Your task to perform on an android device: all mails in gmail Image 0: 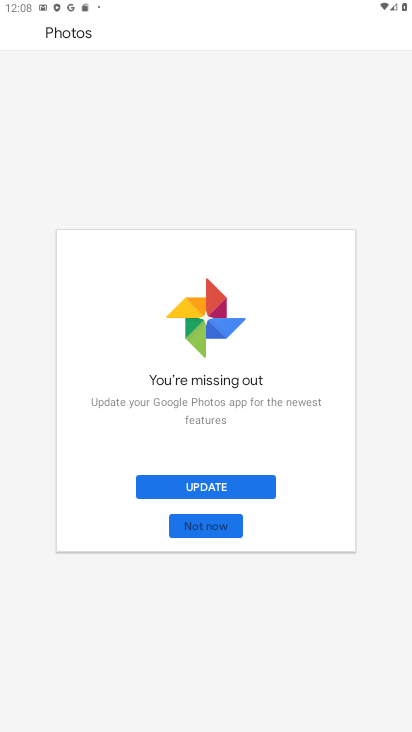
Step 0: press home button
Your task to perform on an android device: all mails in gmail Image 1: 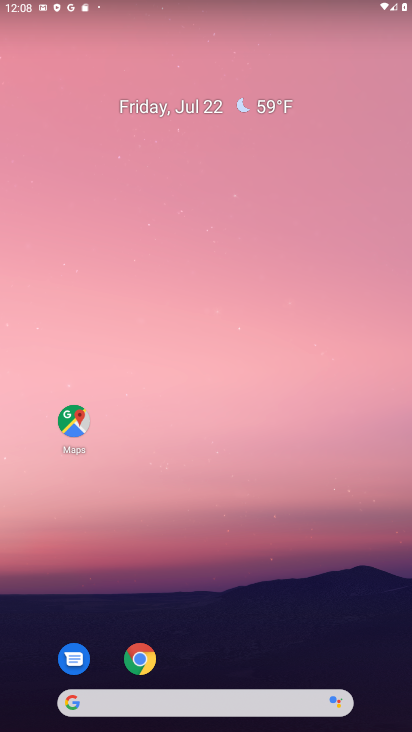
Step 1: drag from (232, 534) to (144, 88)
Your task to perform on an android device: all mails in gmail Image 2: 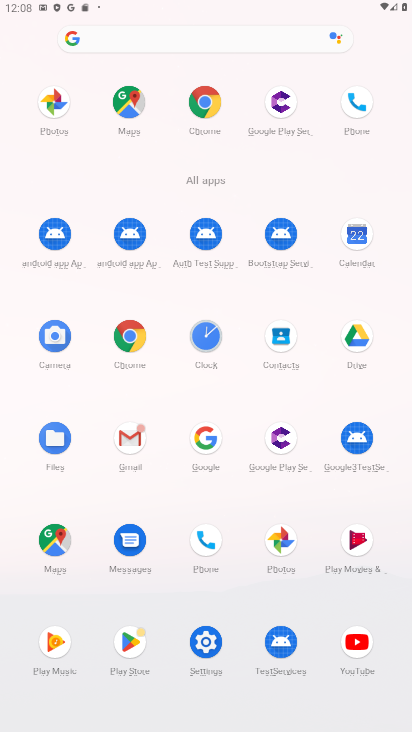
Step 2: click (121, 433)
Your task to perform on an android device: all mails in gmail Image 3: 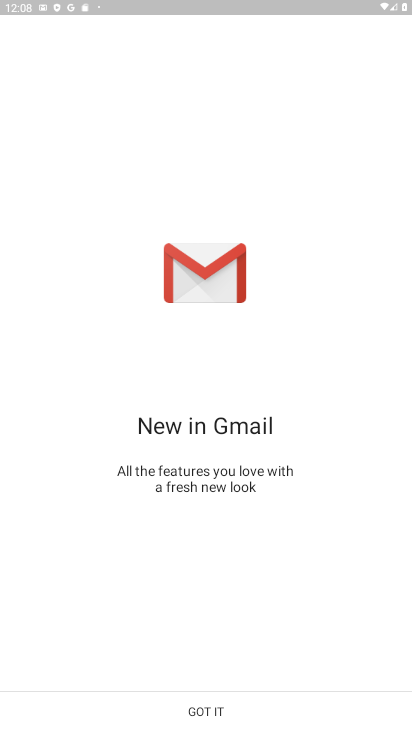
Step 3: click (223, 705)
Your task to perform on an android device: all mails in gmail Image 4: 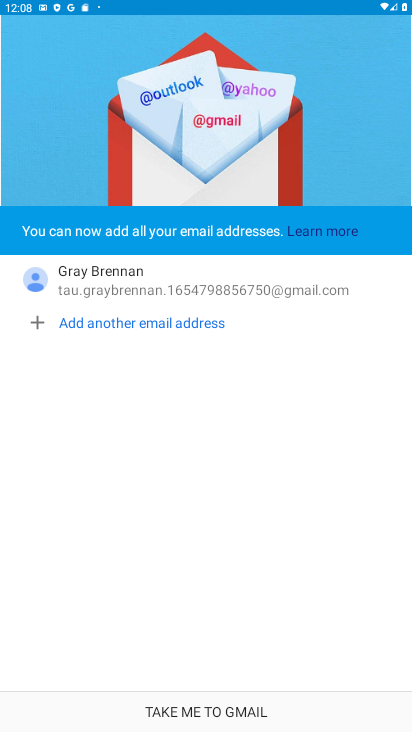
Step 4: click (223, 703)
Your task to perform on an android device: all mails in gmail Image 5: 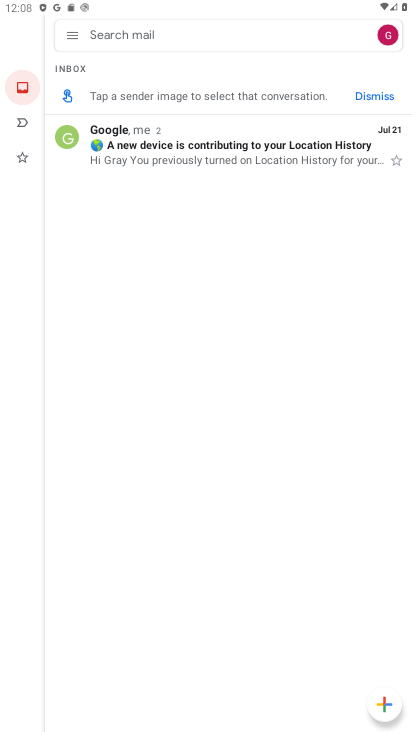
Step 5: click (64, 38)
Your task to perform on an android device: all mails in gmail Image 6: 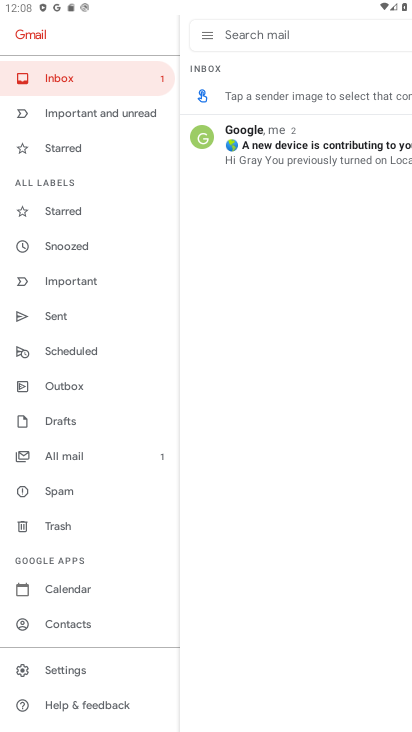
Step 6: click (59, 466)
Your task to perform on an android device: all mails in gmail Image 7: 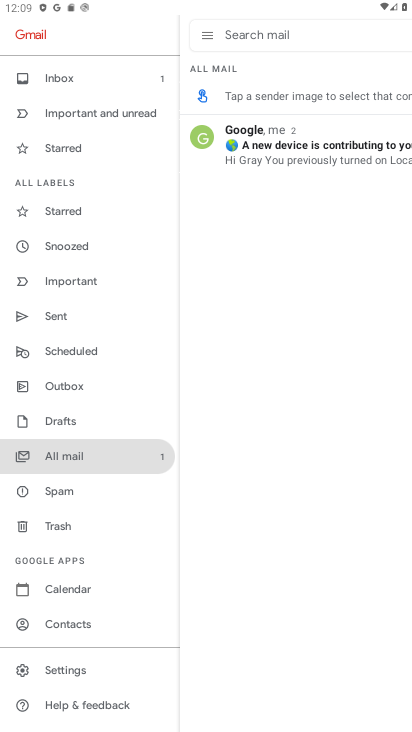
Step 7: task complete